Your task to perform on an android device: What's the weather? Image 0: 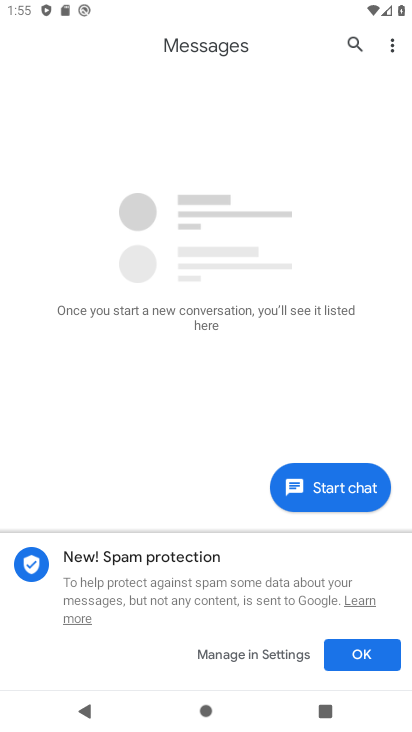
Step 0: press home button
Your task to perform on an android device: What's the weather? Image 1: 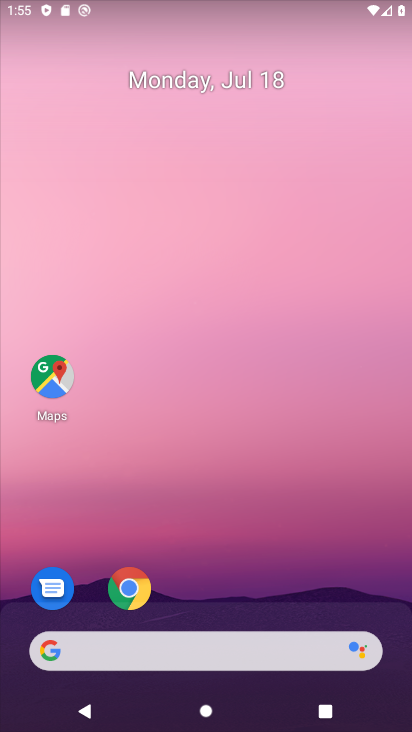
Step 1: click (140, 590)
Your task to perform on an android device: What's the weather? Image 2: 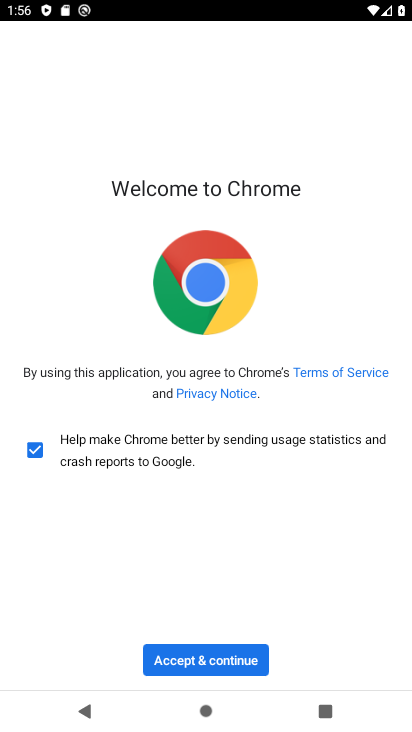
Step 2: click (227, 659)
Your task to perform on an android device: What's the weather? Image 3: 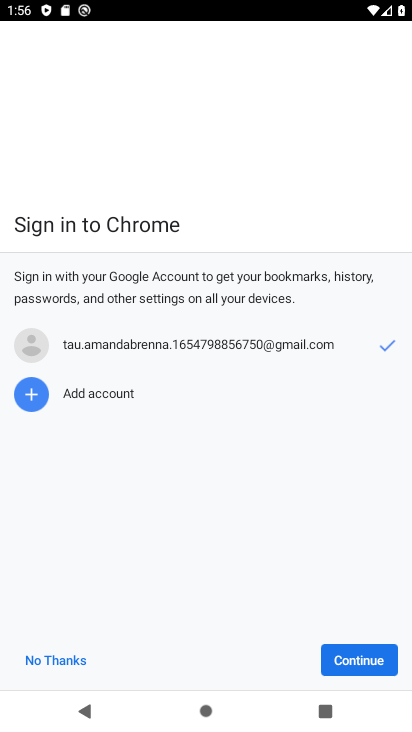
Step 3: click (341, 653)
Your task to perform on an android device: What's the weather? Image 4: 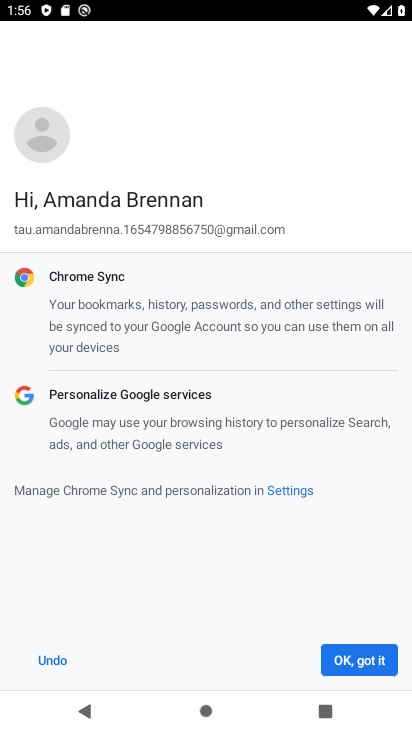
Step 4: click (360, 656)
Your task to perform on an android device: What's the weather? Image 5: 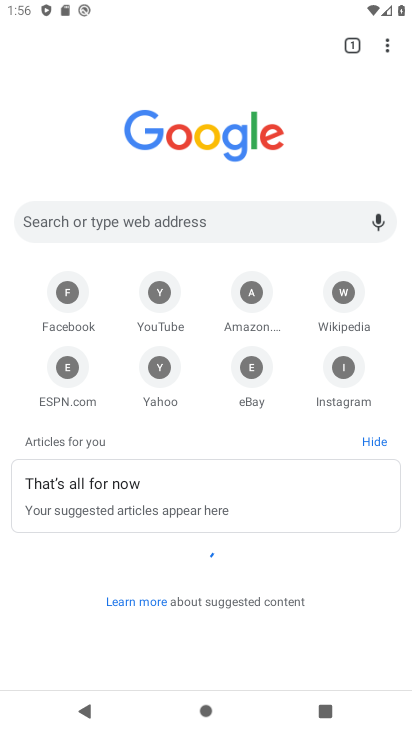
Step 5: click (262, 216)
Your task to perform on an android device: What's the weather? Image 6: 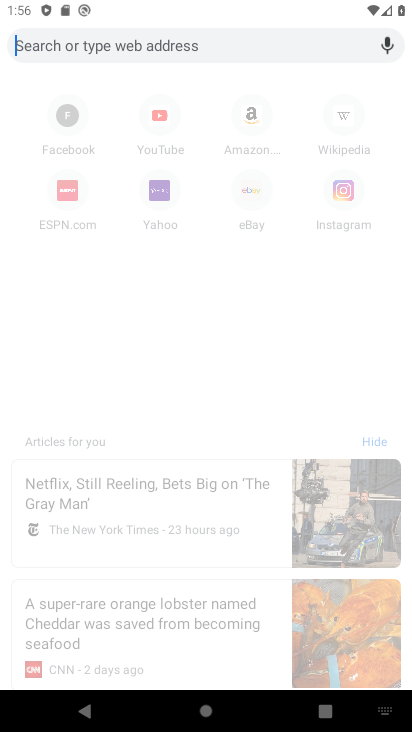
Step 6: type "What's the weather?"
Your task to perform on an android device: What's the weather? Image 7: 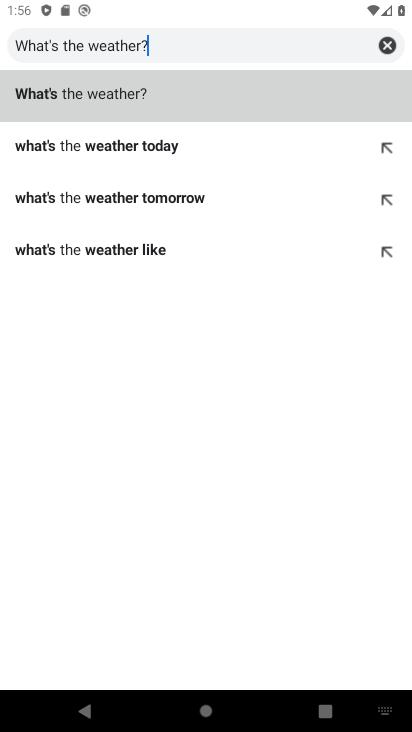
Step 7: click (258, 90)
Your task to perform on an android device: What's the weather? Image 8: 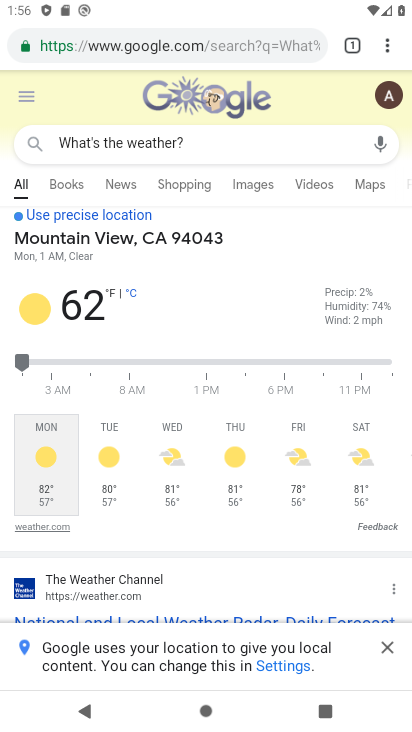
Step 8: task complete